Your task to perform on an android device: Open the calendar app, open the side menu, and click the "Day" option Image 0: 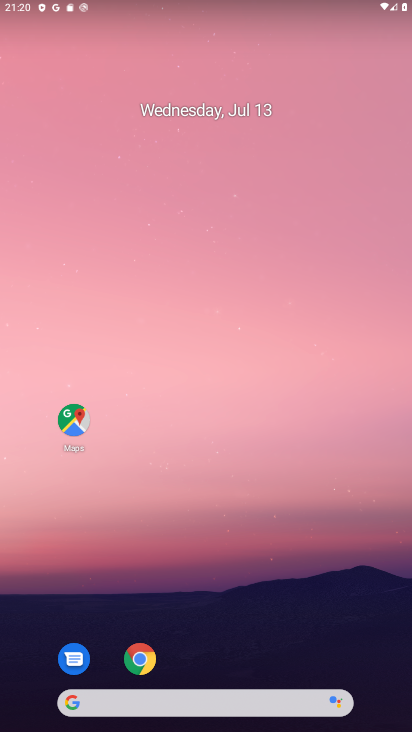
Step 0: drag from (223, 592) to (241, 158)
Your task to perform on an android device: Open the calendar app, open the side menu, and click the "Day" option Image 1: 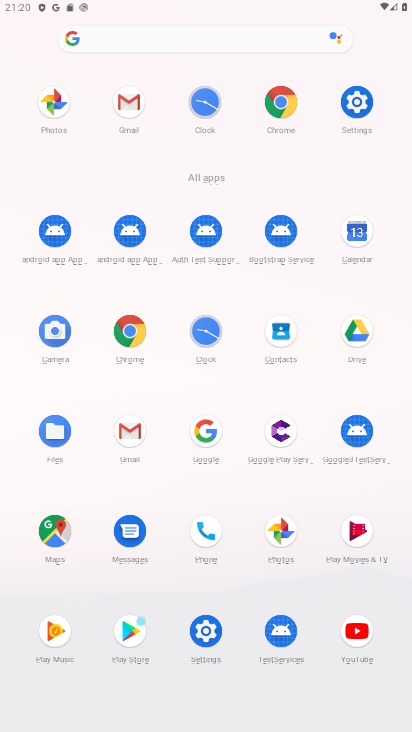
Step 1: click (366, 232)
Your task to perform on an android device: Open the calendar app, open the side menu, and click the "Day" option Image 2: 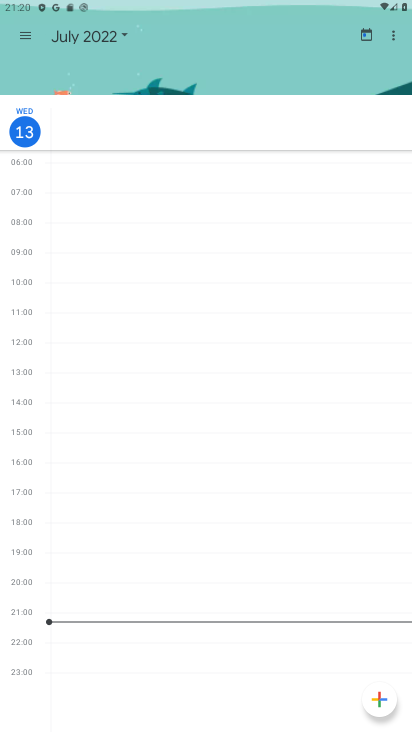
Step 2: click (21, 24)
Your task to perform on an android device: Open the calendar app, open the side menu, and click the "Day" option Image 3: 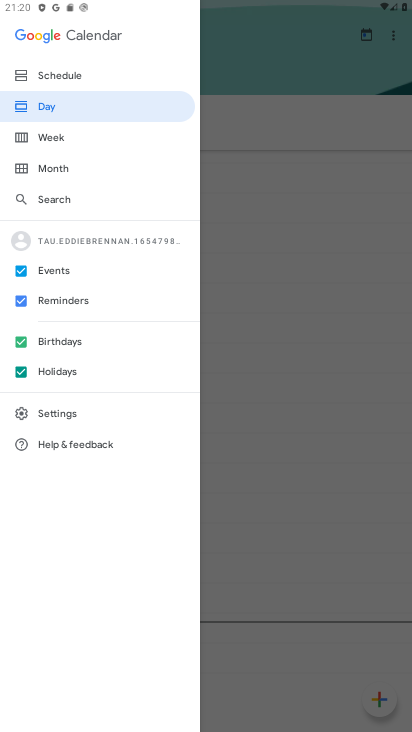
Step 3: click (79, 103)
Your task to perform on an android device: Open the calendar app, open the side menu, and click the "Day" option Image 4: 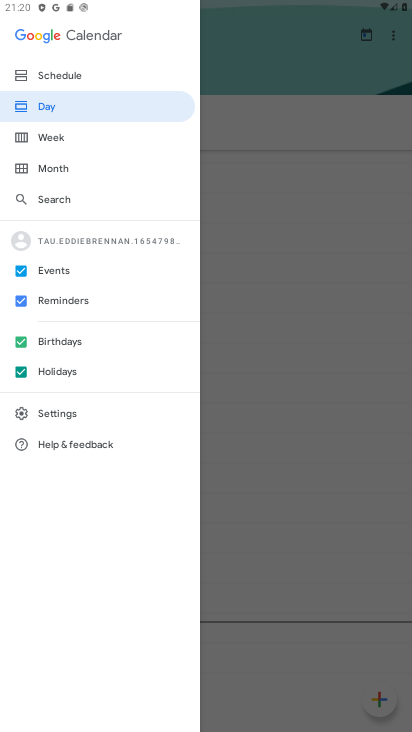
Step 4: click (79, 103)
Your task to perform on an android device: Open the calendar app, open the side menu, and click the "Day" option Image 5: 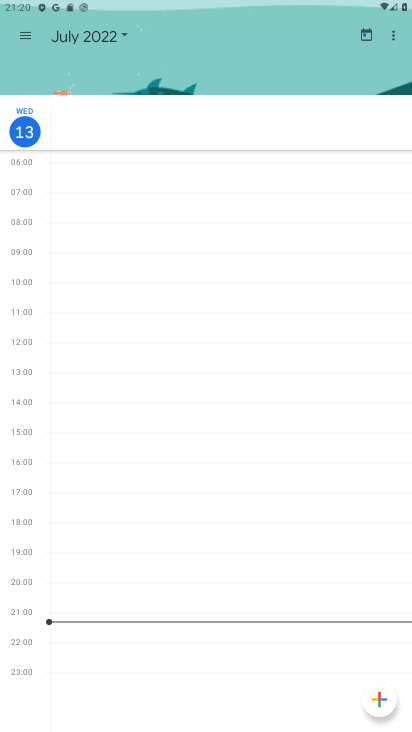
Step 5: task complete